Your task to perform on an android device: change the clock display to digital Image 0: 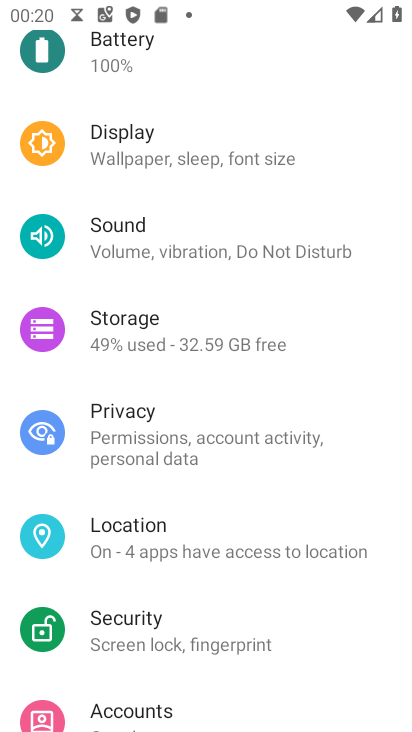
Step 0: press home button
Your task to perform on an android device: change the clock display to digital Image 1: 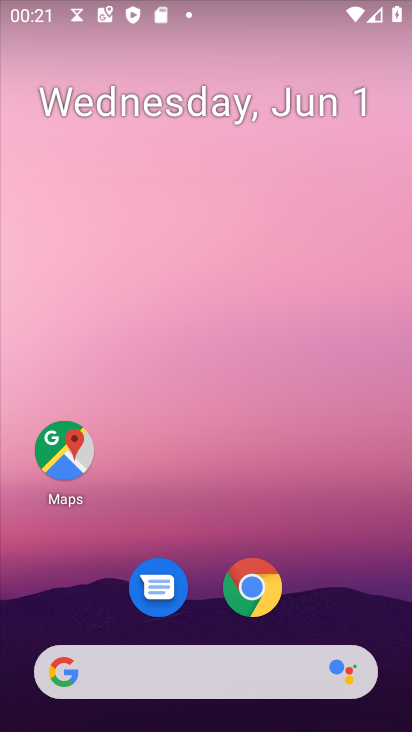
Step 1: drag from (328, 609) to (323, 3)
Your task to perform on an android device: change the clock display to digital Image 2: 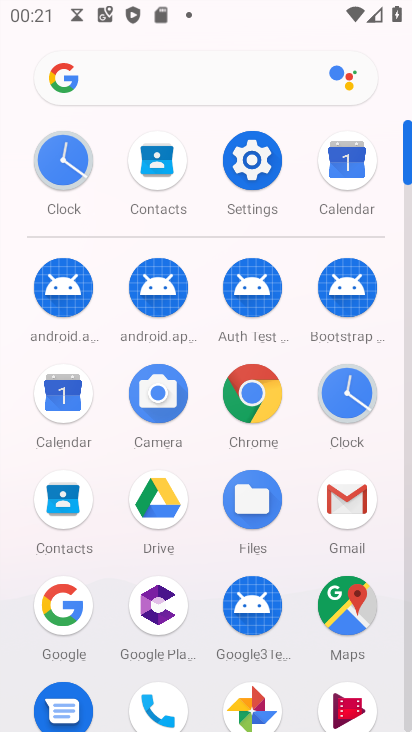
Step 2: click (351, 383)
Your task to perform on an android device: change the clock display to digital Image 3: 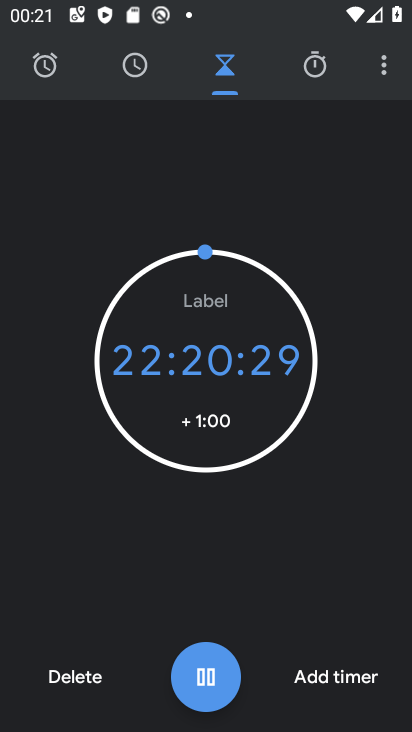
Step 3: click (372, 53)
Your task to perform on an android device: change the clock display to digital Image 4: 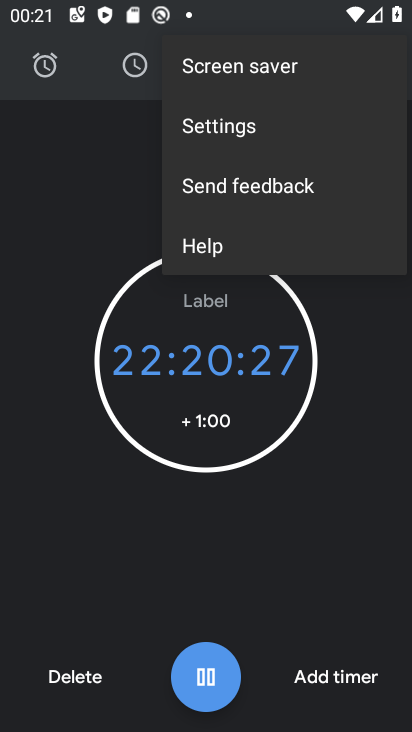
Step 4: click (194, 133)
Your task to perform on an android device: change the clock display to digital Image 5: 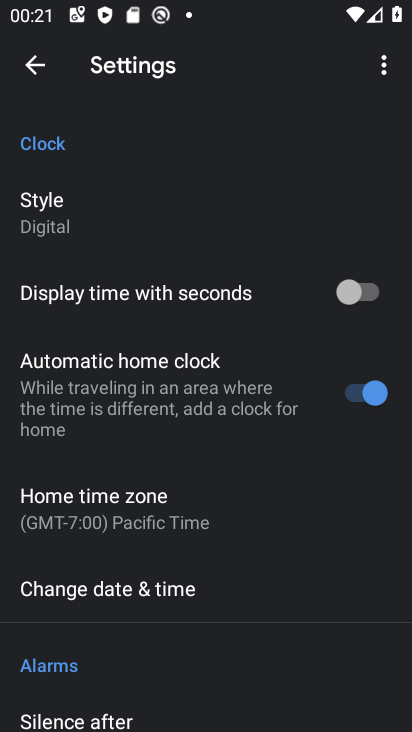
Step 5: click (92, 211)
Your task to perform on an android device: change the clock display to digital Image 6: 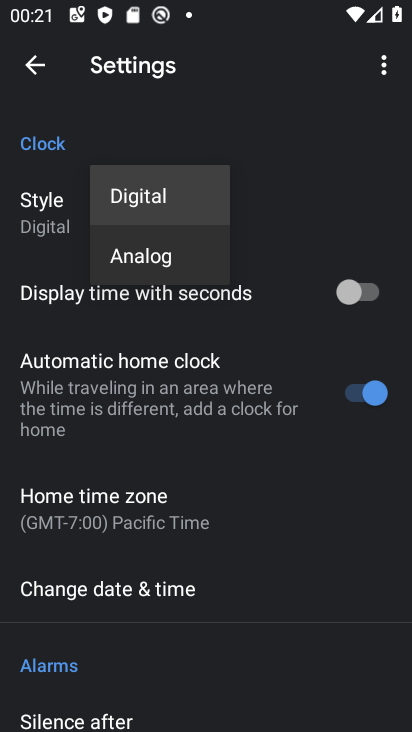
Step 6: click (167, 205)
Your task to perform on an android device: change the clock display to digital Image 7: 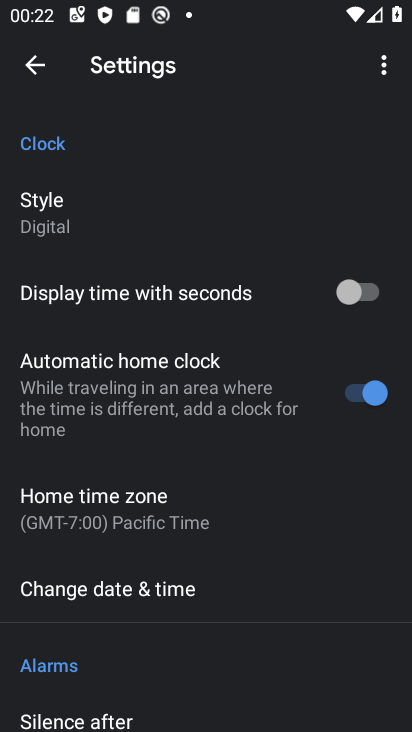
Step 7: task complete